Your task to perform on an android device: choose inbox layout in the gmail app Image 0: 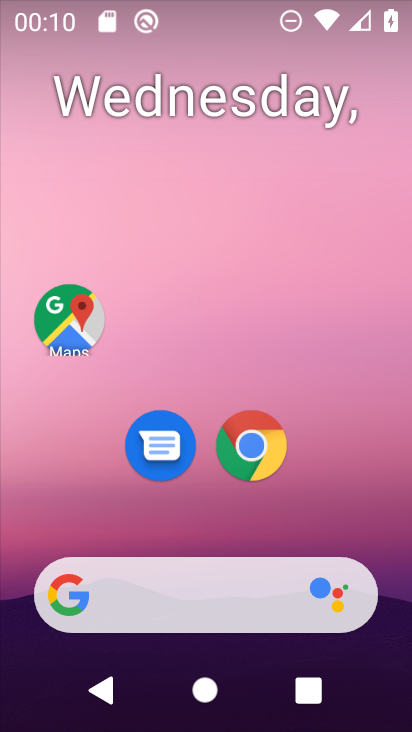
Step 0: drag from (315, 512) to (395, 131)
Your task to perform on an android device: choose inbox layout in the gmail app Image 1: 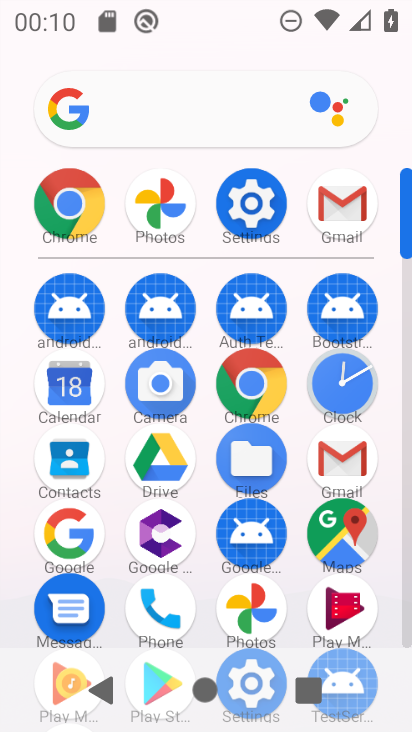
Step 1: click (329, 469)
Your task to perform on an android device: choose inbox layout in the gmail app Image 2: 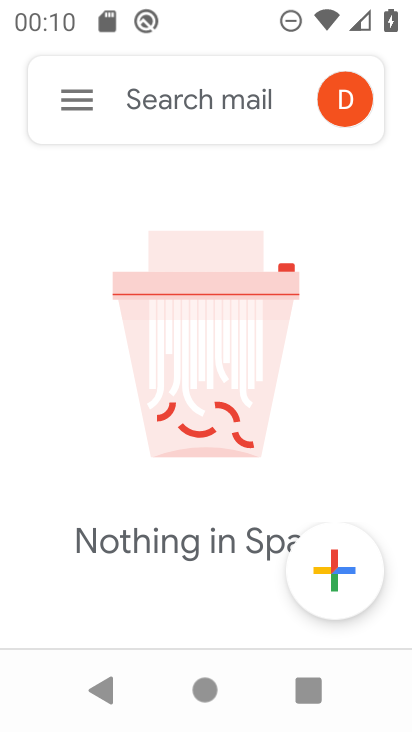
Step 2: click (59, 97)
Your task to perform on an android device: choose inbox layout in the gmail app Image 3: 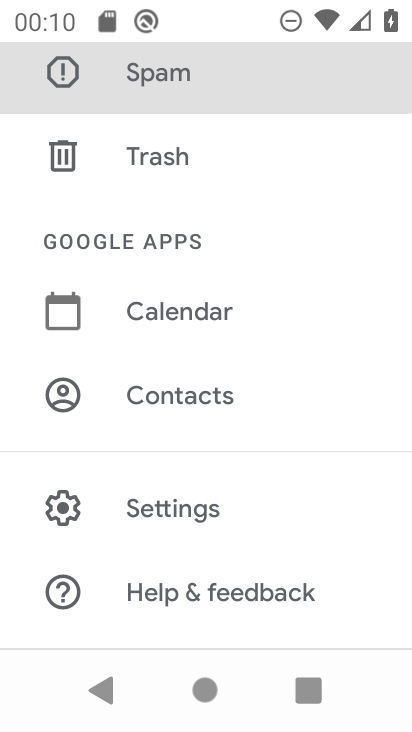
Step 3: click (131, 509)
Your task to perform on an android device: choose inbox layout in the gmail app Image 4: 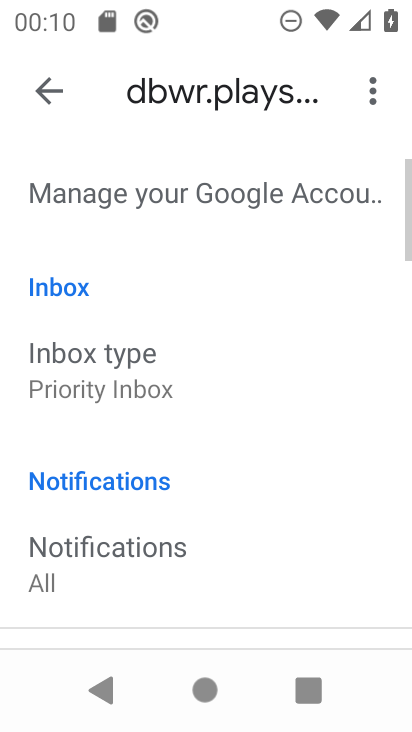
Step 4: click (152, 414)
Your task to perform on an android device: choose inbox layout in the gmail app Image 5: 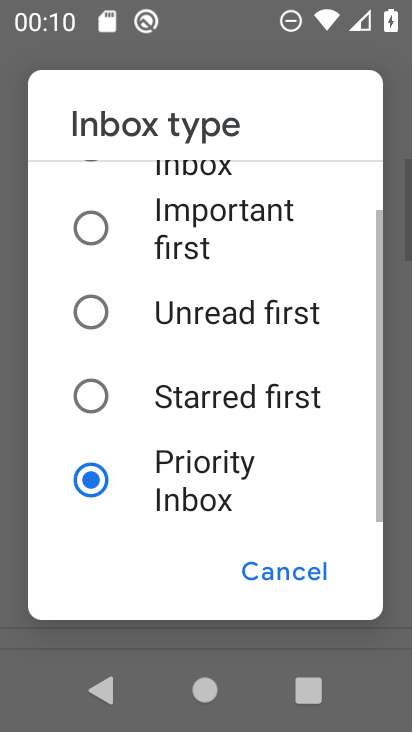
Step 5: drag from (266, 210) to (281, 422)
Your task to perform on an android device: choose inbox layout in the gmail app Image 6: 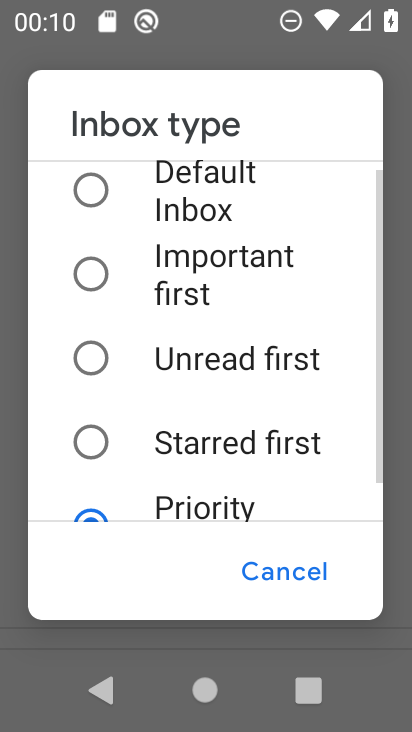
Step 6: click (252, 215)
Your task to perform on an android device: choose inbox layout in the gmail app Image 7: 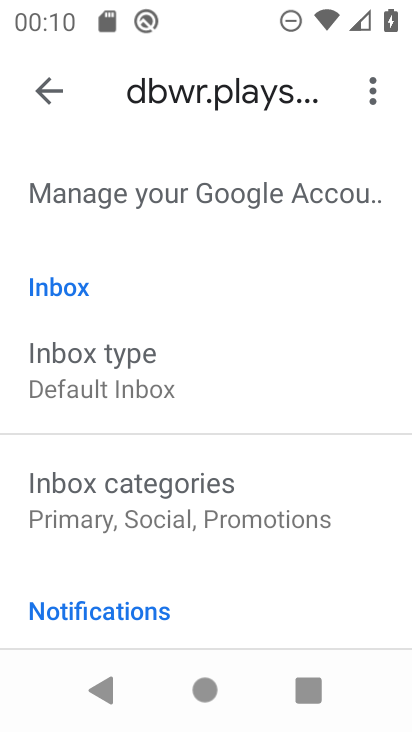
Step 7: task complete